Your task to perform on an android device: set an alarm Image 0: 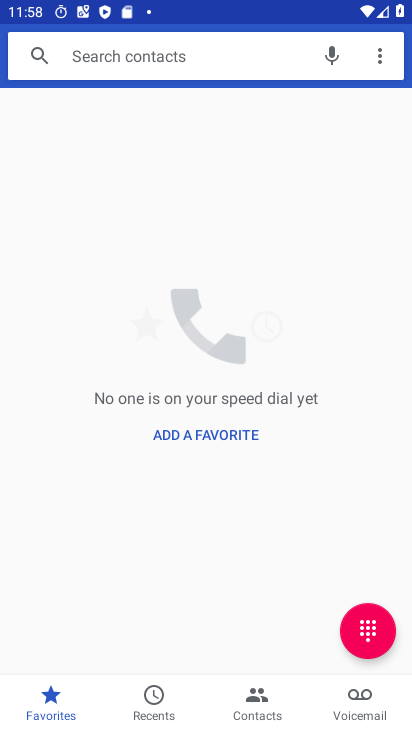
Step 0: press home button
Your task to perform on an android device: set an alarm Image 1: 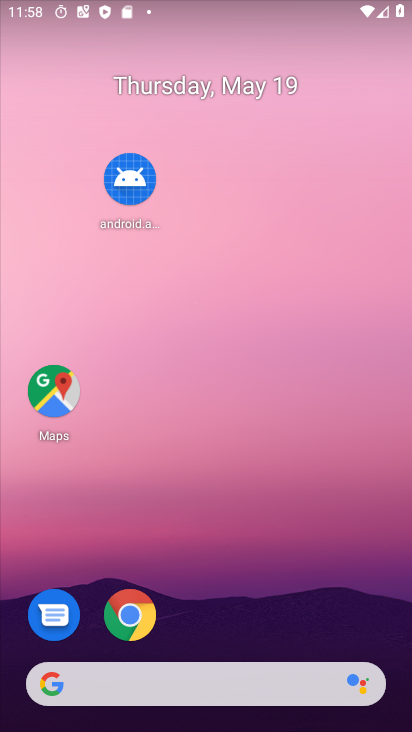
Step 1: drag from (327, 575) to (320, 264)
Your task to perform on an android device: set an alarm Image 2: 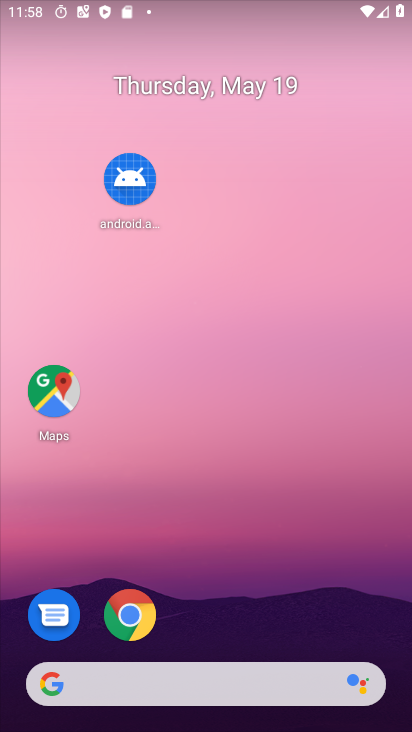
Step 2: drag from (291, 617) to (304, 233)
Your task to perform on an android device: set an alarm Image 3: 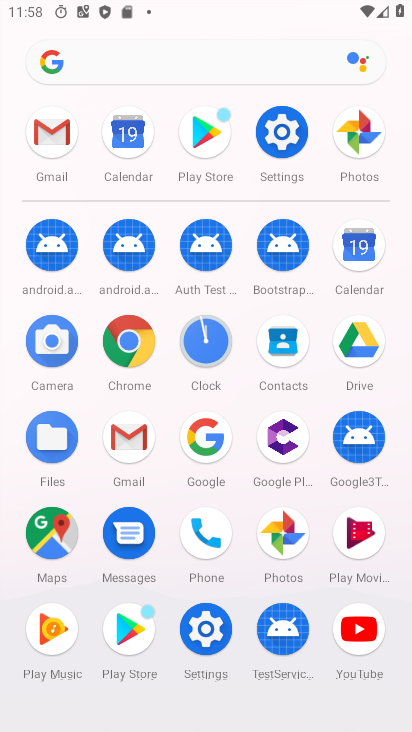
Step 3: click (201, 339)
Your task to perform on an android device: set an alarm Image 4: 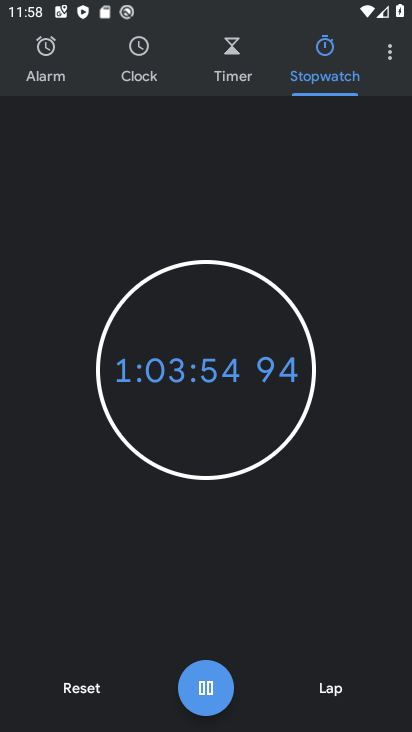
Step 4: click (68, 70)
Your task to perform on an android device: set an alarm Image 5: 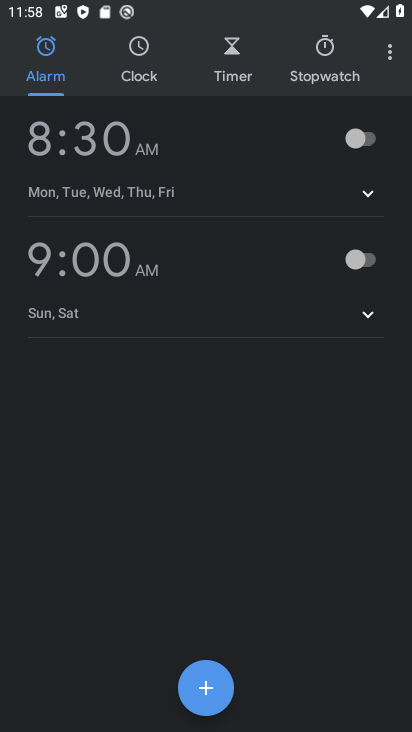
Step 5: click (359, 151)
Your task to perform on an android device: set an alarm Image 6: 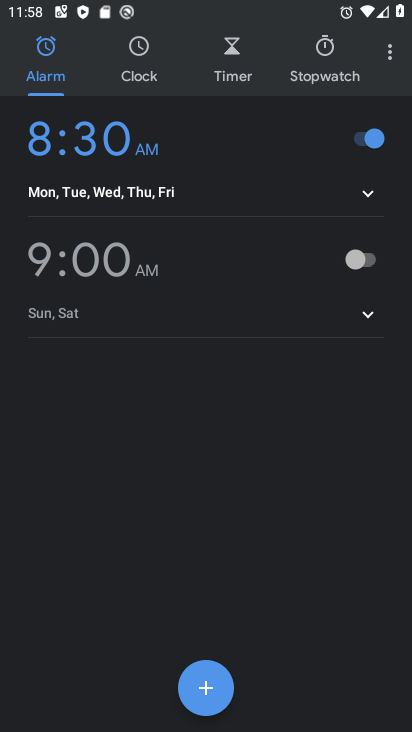
Step 6: task complete